Your task to perform on an android device: change notifications settings Image 0: 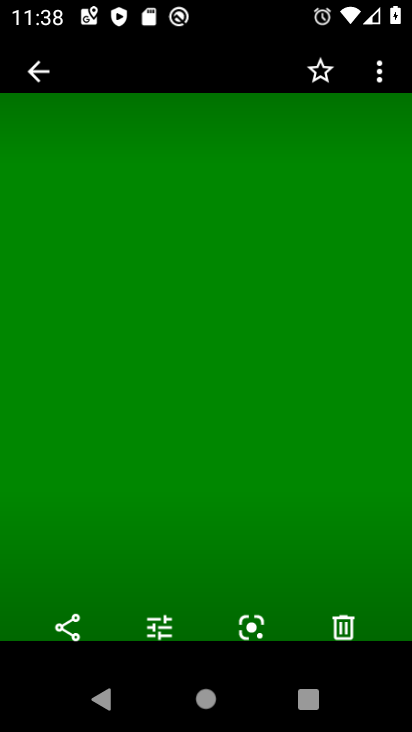
Step 0: press home button
Your task to perform on an android device: change notifications settings Image 1: 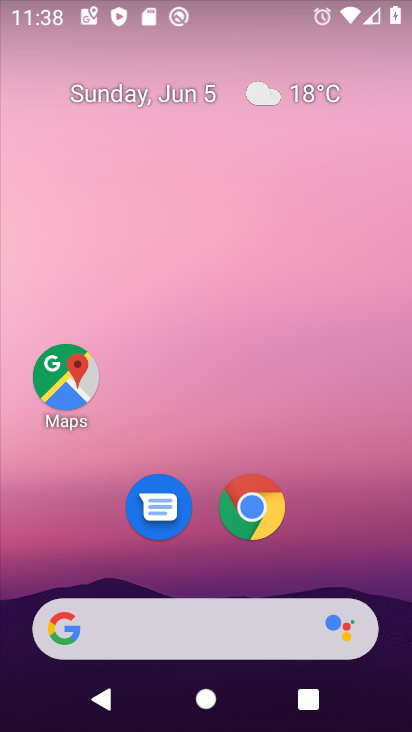
Step 1: drag from (255, 672) to (257, 45)
Your task to perform on an android device: change notifications settings Image 2: 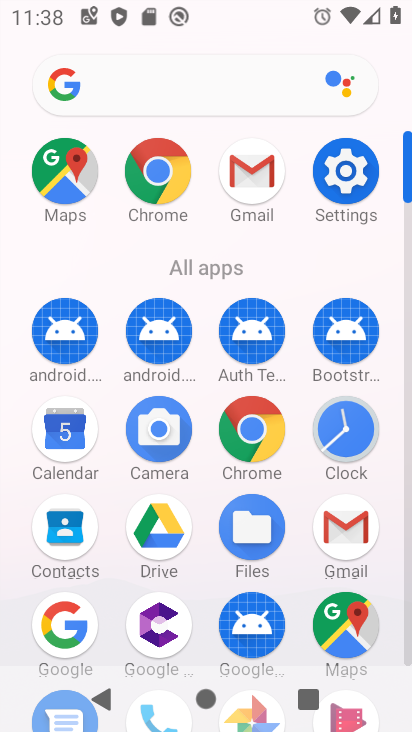
Step 2: click (338, 165)
Your task to perform on an android device: change notifications settings Image 3: 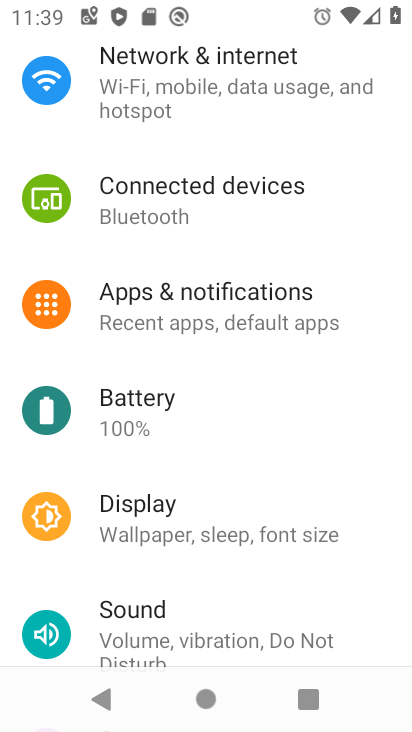
Step 3: click (177, 316)
Your task to perform on an android device: change notifications settings Image 4: 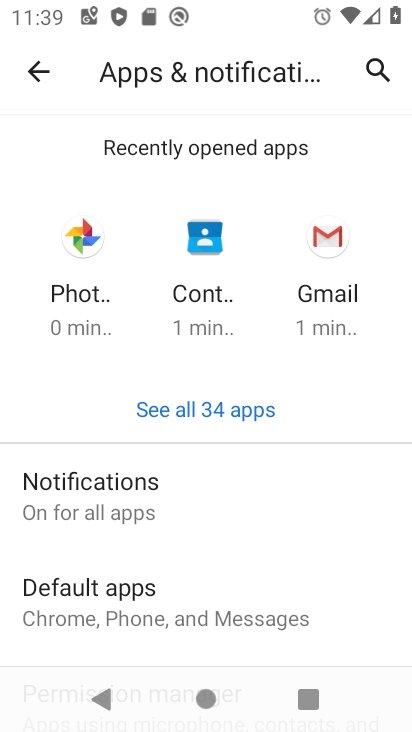
Step 4: drag from (154, 576) to (152, 370)
Your task to perform on an android device: change notifications settings Image 5: 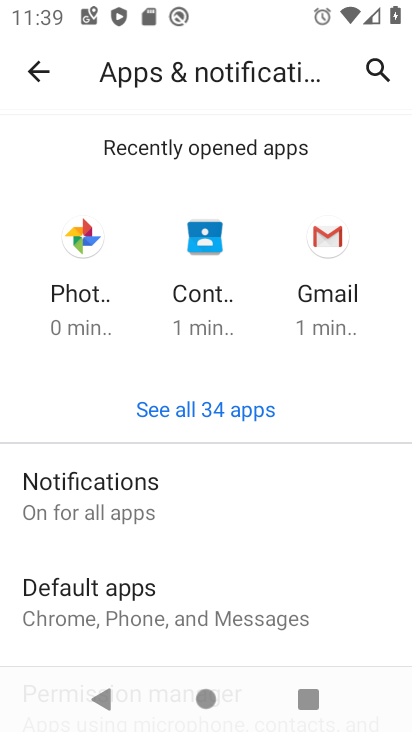
Step 5: click (113, 493)
Your task to perform on an android device: change notifications settings Image 6: 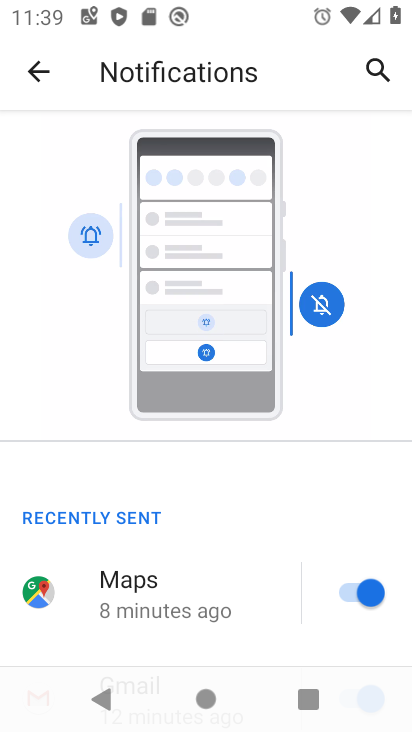
Step 6: drag from (211, 635) to (202, 326)
Your task to perform on an android device: change notifications settings Image 7: 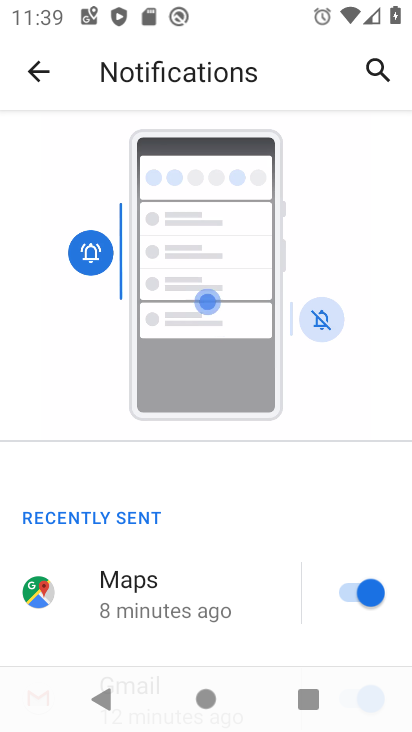
Step 7: drag from (237, 636) to (231, 247)
Your task to perform on an android device: change notifications settings Image 8: 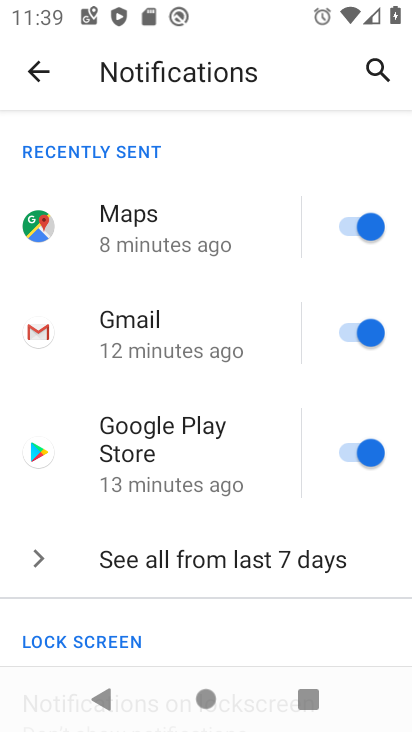
Step 8: drag from (253, 599) to (221, 229)
Your task to perform on an android device: change notifications settings Image 9: 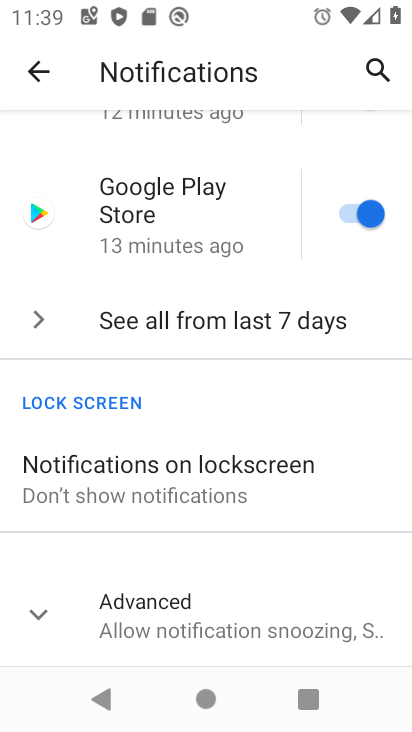
Step 9: click (164, 605)
Your task to perform on an android device: change notifications settings Image 10: 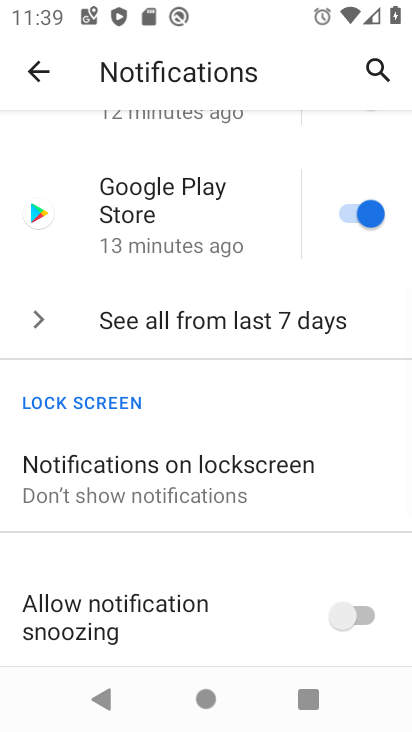
Step 10: drag from (245, 647) to (217, 368)
Your task to perform on an android device: change notifications settings Image 11: 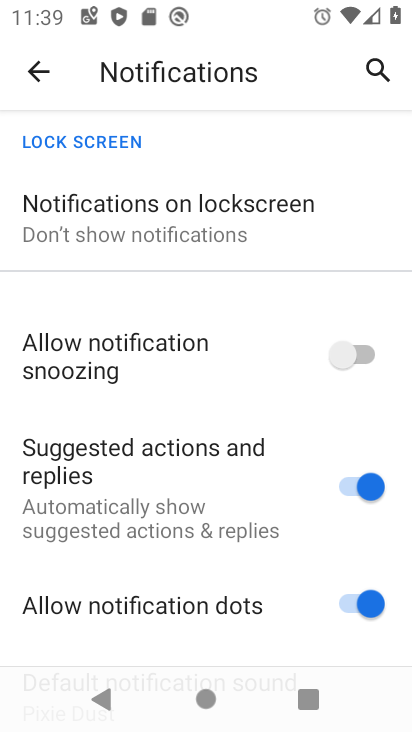
Step 11: drag from (246, 644) to (233, 375)
Your task to perform on an android device: change notifications settings Image 12: 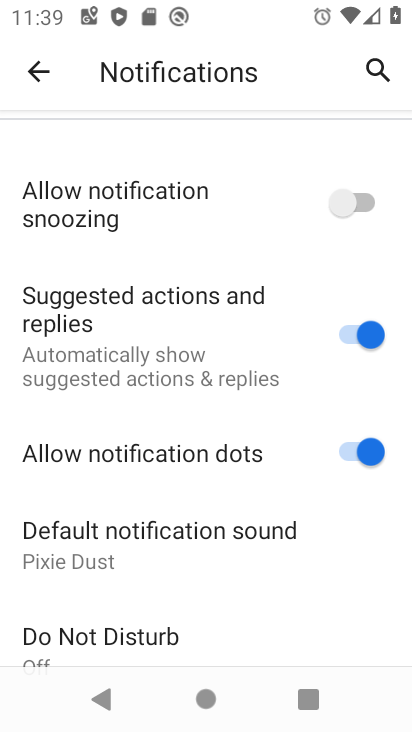
Step 12: click (362, 205)
Your task to perform on an android device: change notifications settings Image 13: 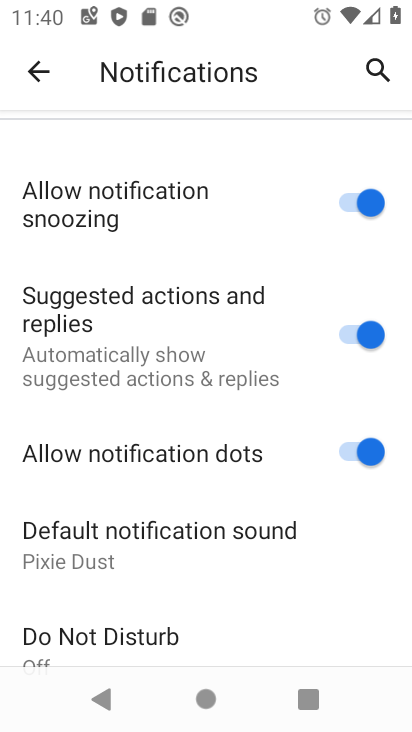
Step 13: task complete